Your task to perform on an android device: manage bookmarks in the chrome app Image 0: 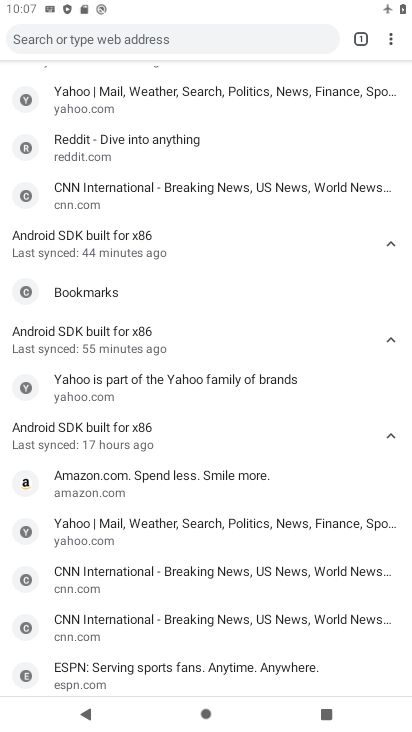
Step 0: press home button
Your task to perform on an android device: manage bookmarks in the chrome app Image 1: 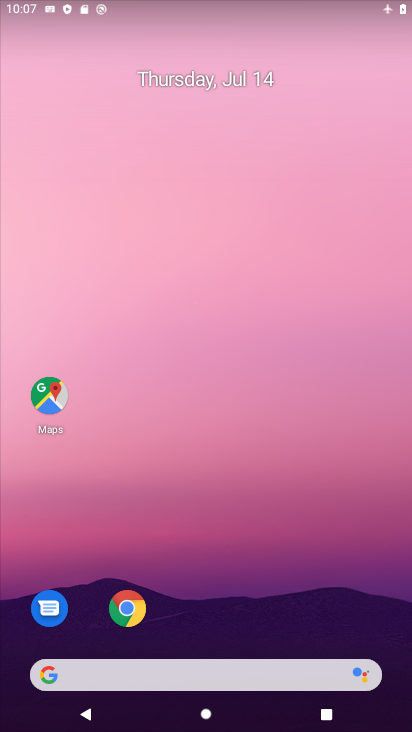
Step 1: click (140, 607)
Your task to perform on an android device: manage bookmarks in the chrome app Image 2: 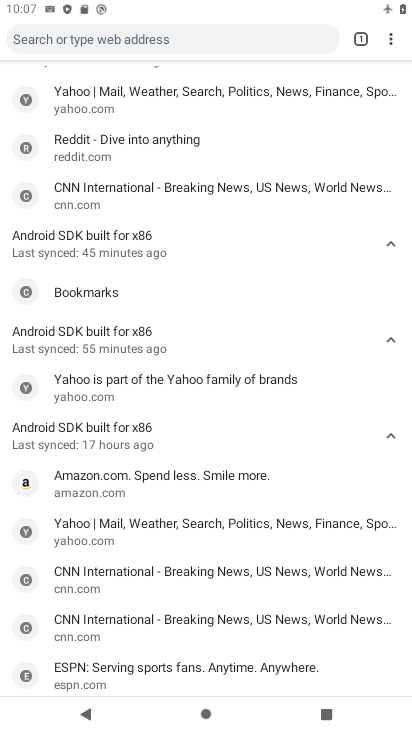
Step 2: click (390, 37)
Your task to perform on an android device: manage bookmarks in the chrome app Image 3: 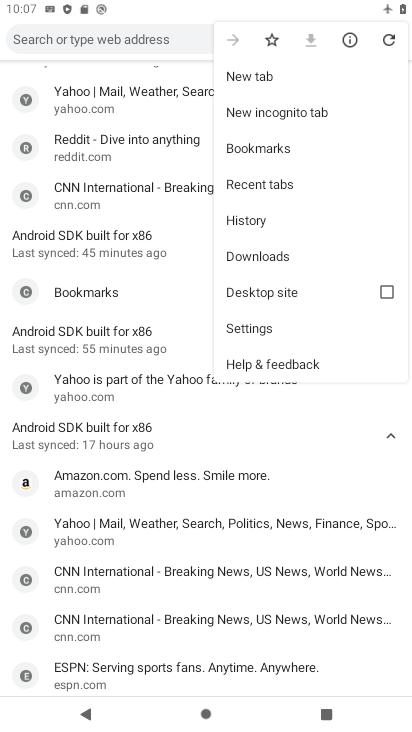
Step 3: click (260, 150)
Your task to perform on an android device: manage bookmarks in the chrome app Image 4: 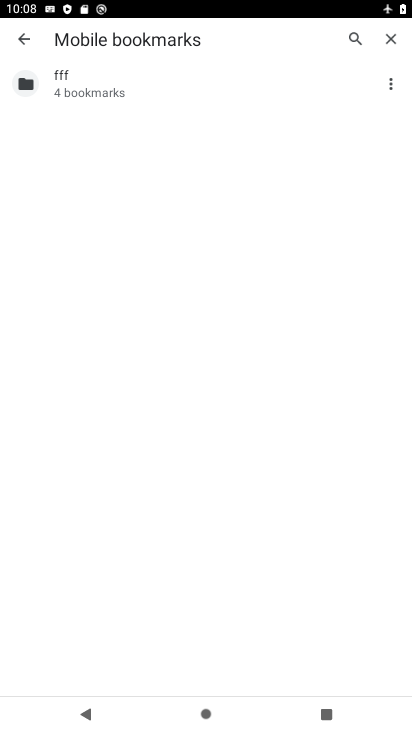
Step 4: click (101, 85)
Your task to perform on an android device: manage bookmarks in the chrome app Image 5: 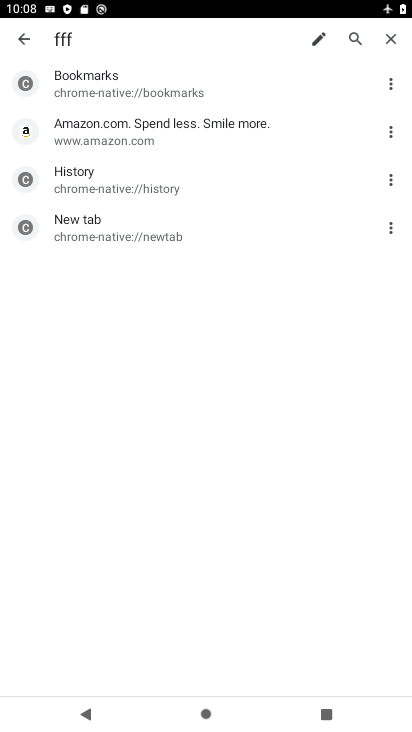
Step 5: click (393, 131)
Your task to perform on an android device: manage bookmarks in the chrome app Image 6: 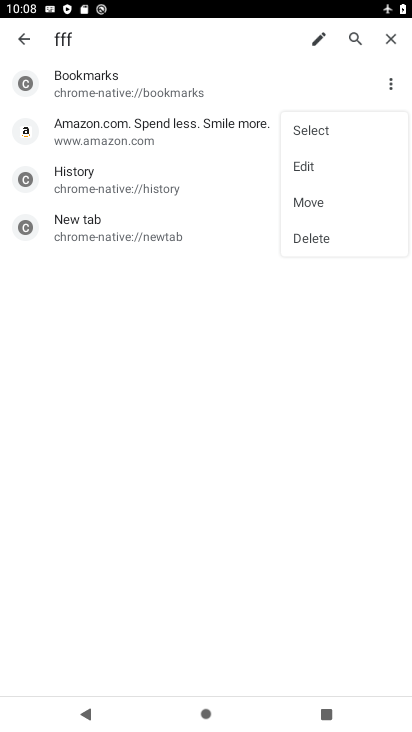
Step 6: click (318, 130)
Your task to perform on an android device: manage bookmarks in the chrome app Image 7: 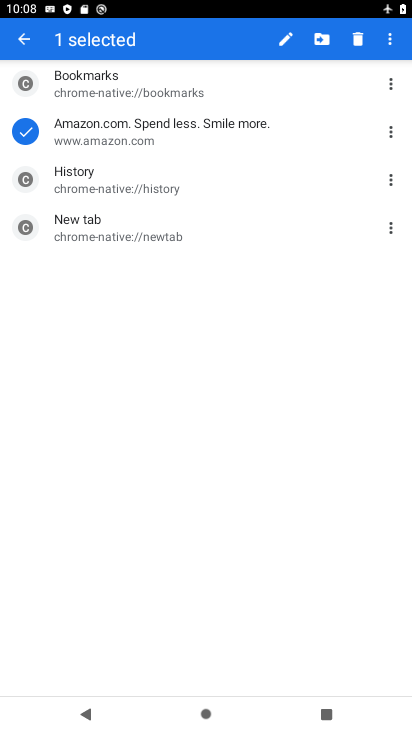
Step 7: click (97, 185)
Your task to perform on an android device: manage bookmarks in the chrome app Image 8: 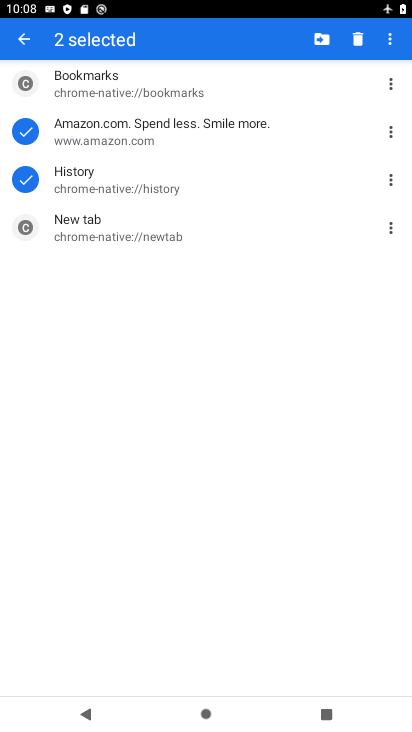
Step 8: click (321, 44)
Your task to perform on an android device: manage bookmarks in the chrome app Image 9: 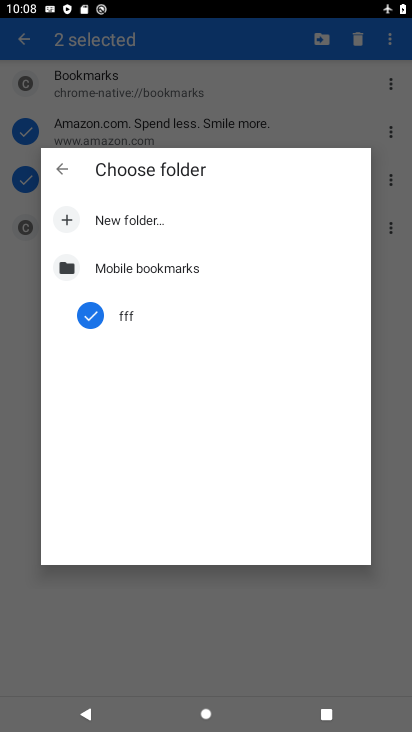
Step 9: click (141, 221)
Your task to perform on an android device: manage bookmarks in the chrome app Image 10: 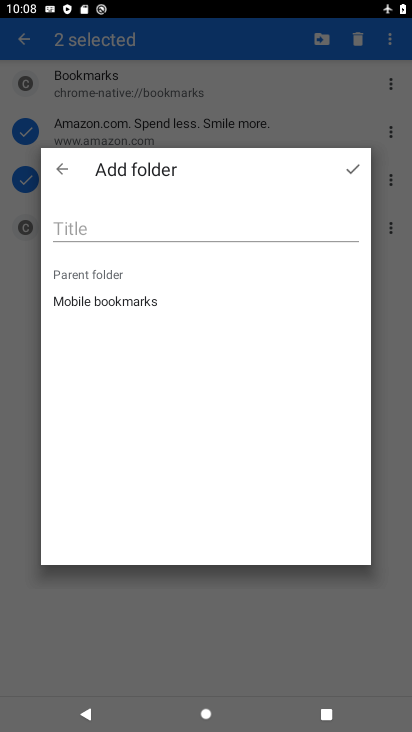
Step 10: click (138, 236)
Your task to perform on an android device: manage bookmarks in the chrome app Image 11: 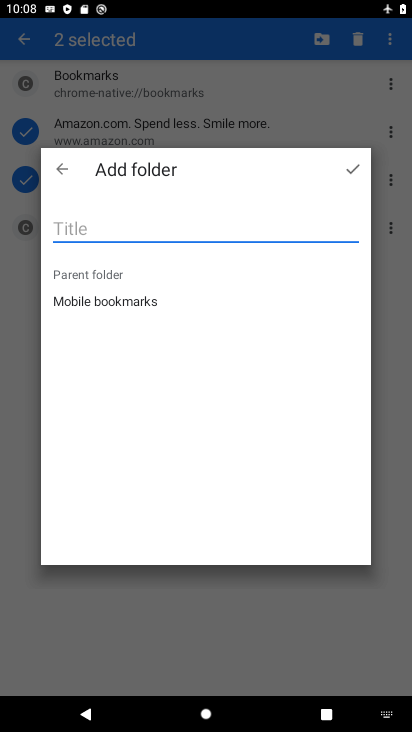
Step 11: type "fled"
Your task to perform on an android device: manage bookmarks in the chrome app Image 12: 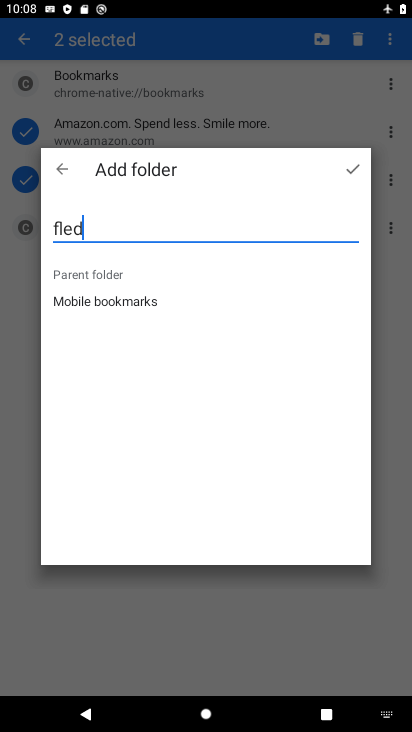
Step 12: click (355, 157)
Your task to perform on an android device: manage bookmarks in the chrome app Image 13: 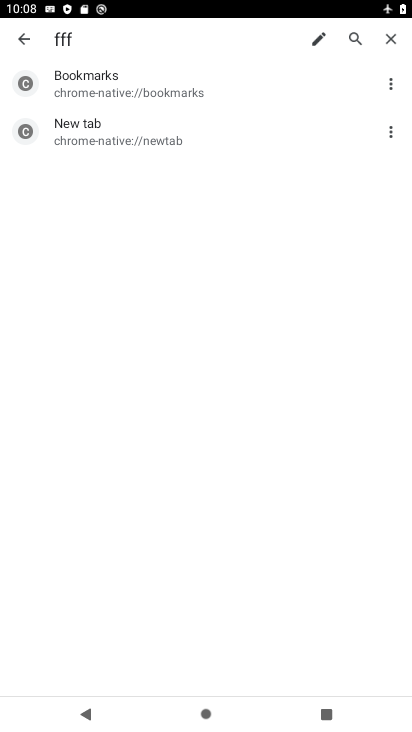
Step 13: task complete